Your task to perform on an android device: What's the weather going to be tomorrow? Image 0: 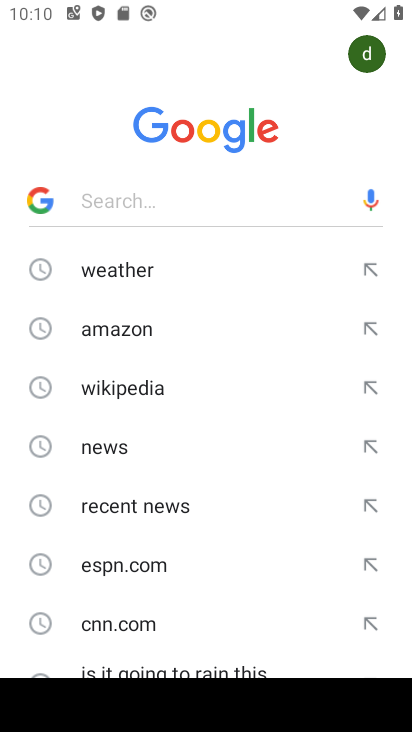
Step 0: click (161, 280)
Your task to perform on an android device: What's the weather going to be tomorrow? Image 1: 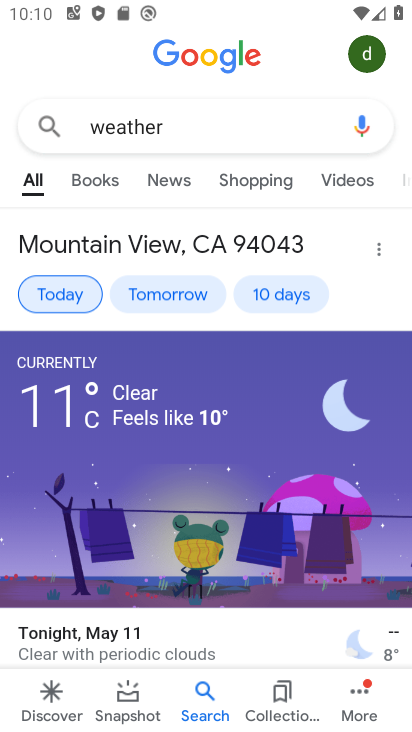
Step 1: click (168, 287)
Your task to perform on an android device: What's the weather going to be tomorrow? Image 2: 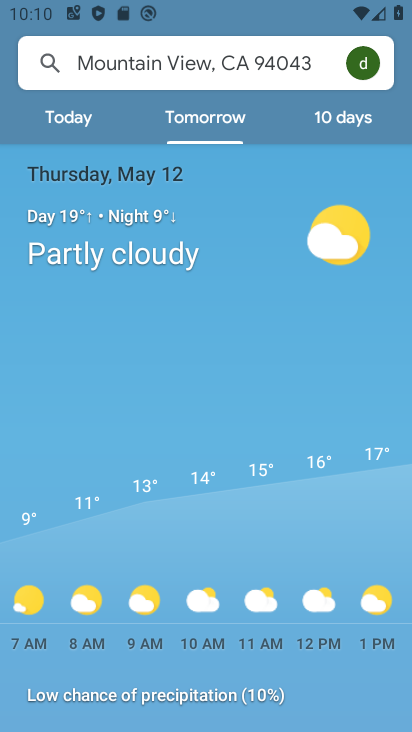
Step 2: task complete